Your task to perform on an android device: Open the calendar app, open the side menu, and click the "Day" option Image 0: 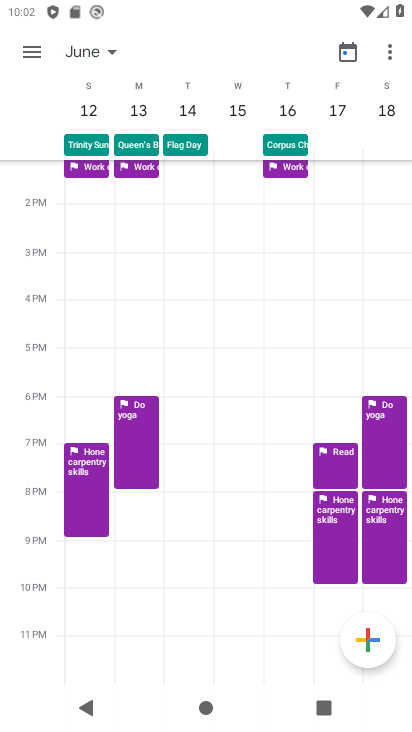
Step 0: click (27, 54)
Your task to perform on an android device: Open the calendar app, open the side menu, and click the "Day" option Image 1: 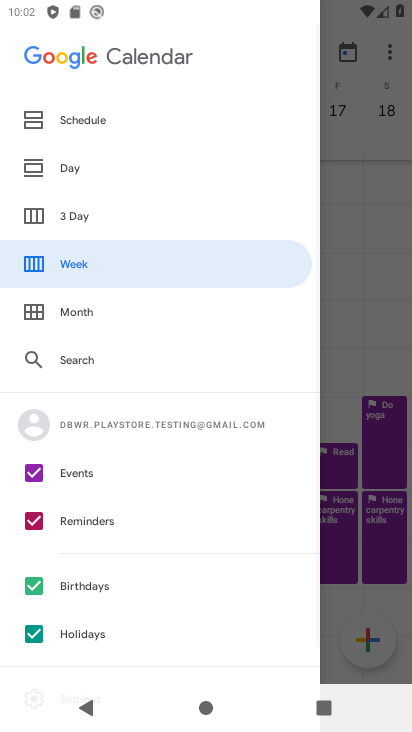
Step 1: click (71, 170)
Your task to perform on an android device: Open the calendar app, open the side menu, and click the "Day" option Image 2: 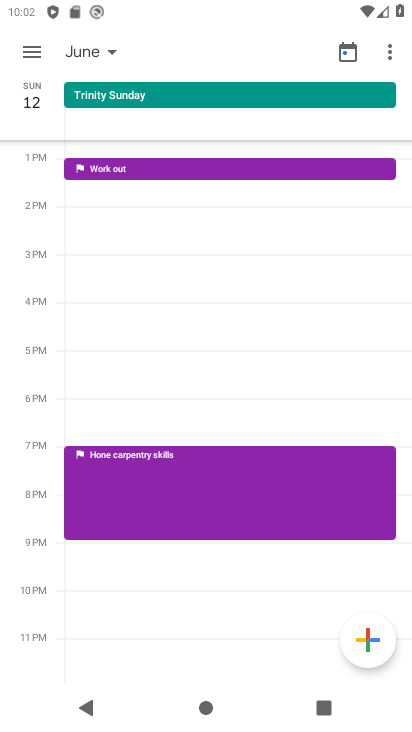
Step 2: task complete